Your task to perform on an android device: View the shopping cart on target.com. Add "panasonic triple a" to the cart on target.com Image 0: 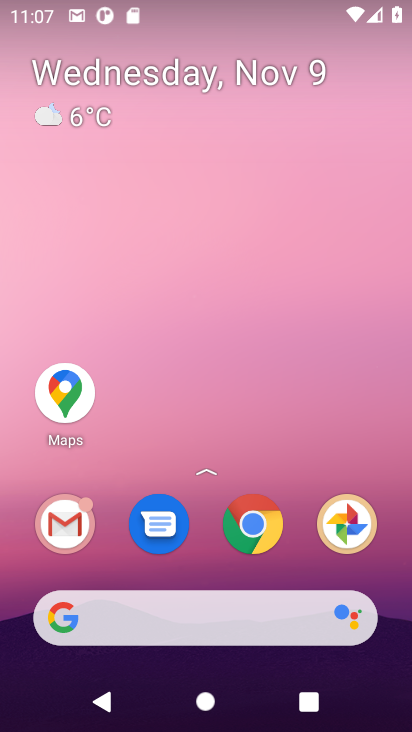
Step 0: click (251, 534)
Your task to perform on an android device: View the shopping cart on target.com. Add "panasonic triple a" to the cart on target.com Image 1: 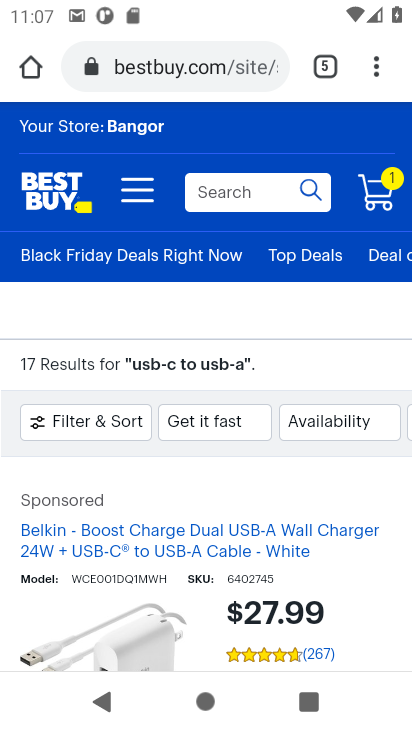
Step 1: click (326, 64)
Your task to perform on an android device: View the shopping cart on target.com. Add "panasonic triple a" to the cart on target.com Image 2: 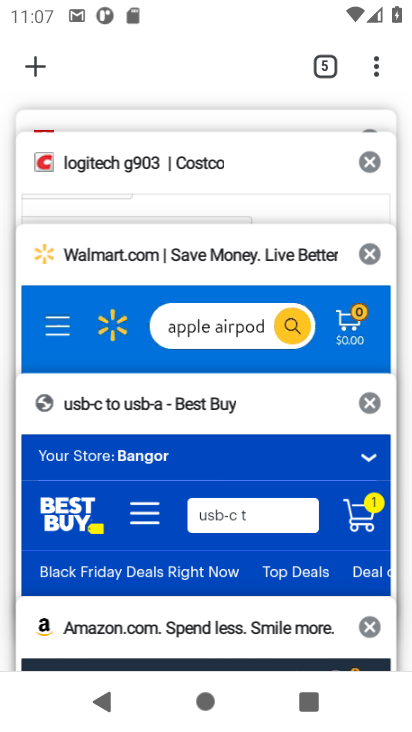
Step 2: click (244, 119)
Your task to perform on an android device: View the shopping cart on target.com. Add "panasonic triple a" to the cart on target.com Image 3: 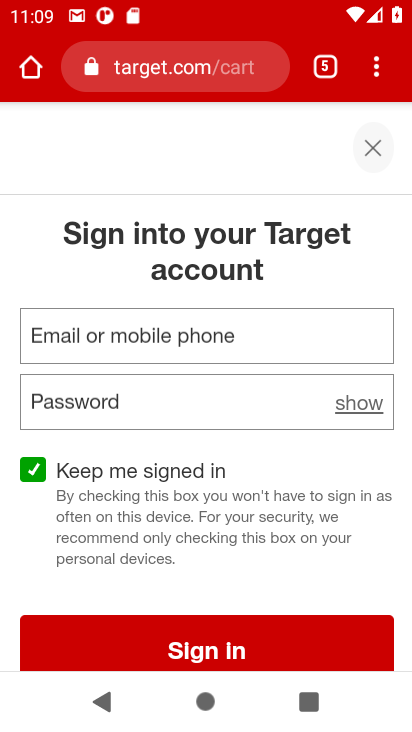
Step 3: click (381, 154)
Your task to perform on an android device: View the shopping cart on target.com. Add "panasonic triple a" to the cart on target.com Image 4: 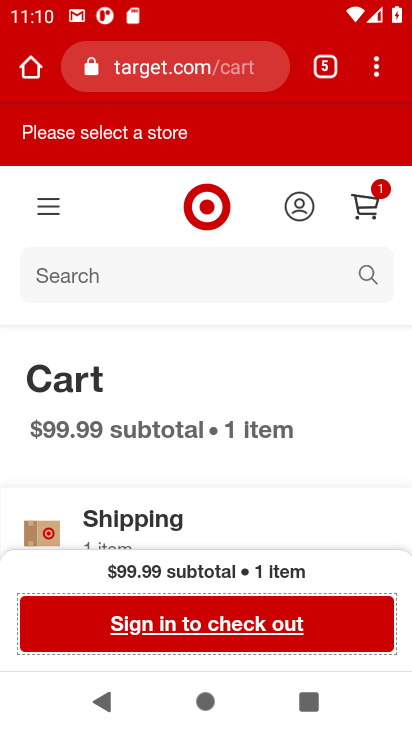
Step 4: task complete